Your task to perform on an android device: Open Google Maps and go to "Timeline" Image 0: 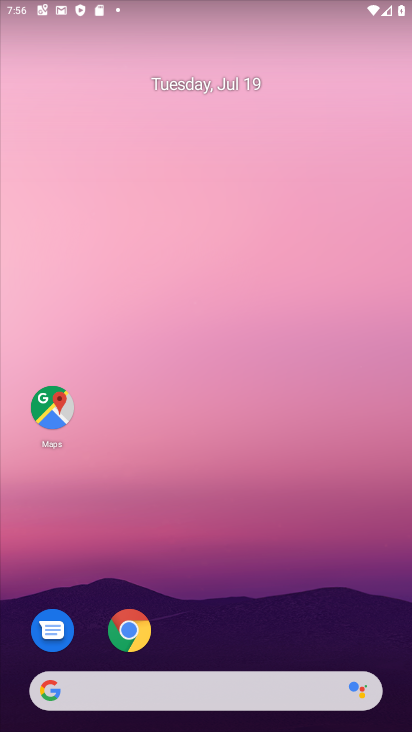
Step 0: click (48, 418)
Your task to perform on an android device: Open Google Maps and go to "Timeline" Image 1: 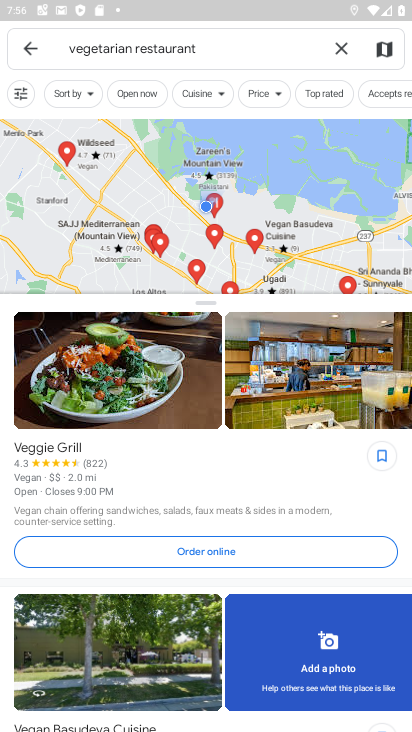
Step 1: click (27, 57)
Your task to perform on an android device: Open Google Maps and go to "Timeline" Image 2: 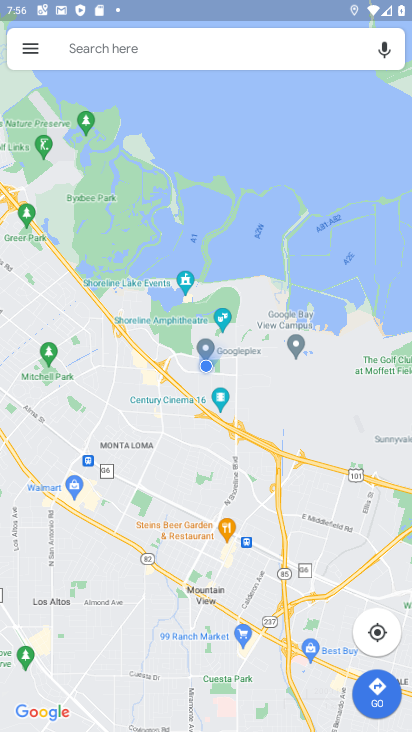
Step 2: click (21, 48)
Your task to perform on an android device: Open Google Maps and go to "Timeline" Image 3: 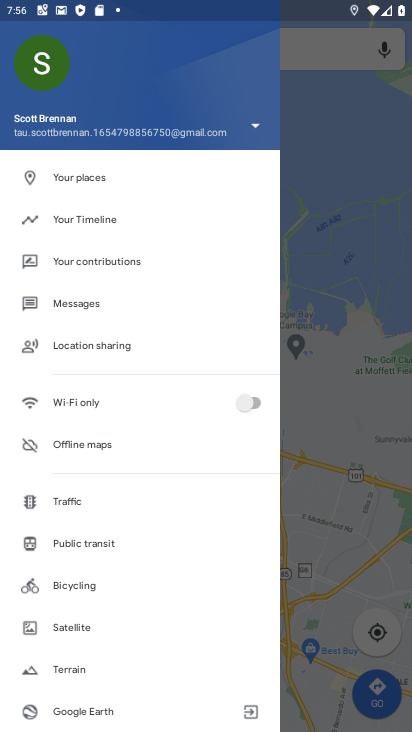
Step 3: click (88, 217)
Your task to perform on an android device: Open Google Maps and go to "Timeline" Image 4: 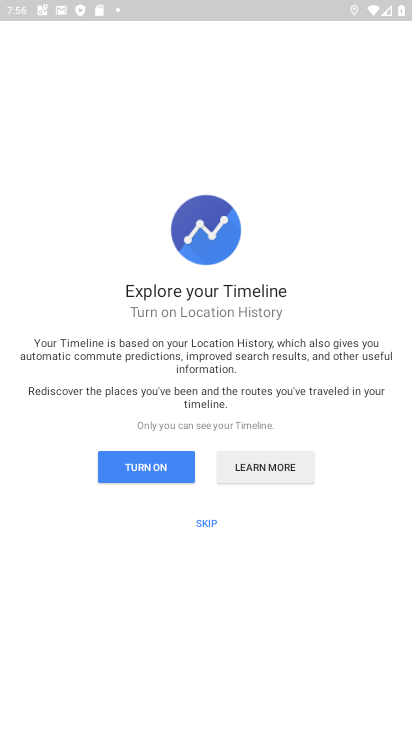
Step 4: click (149, 466)
Your task to perform on an android device: Open Google Maps and go to "Timeline" Image 5: 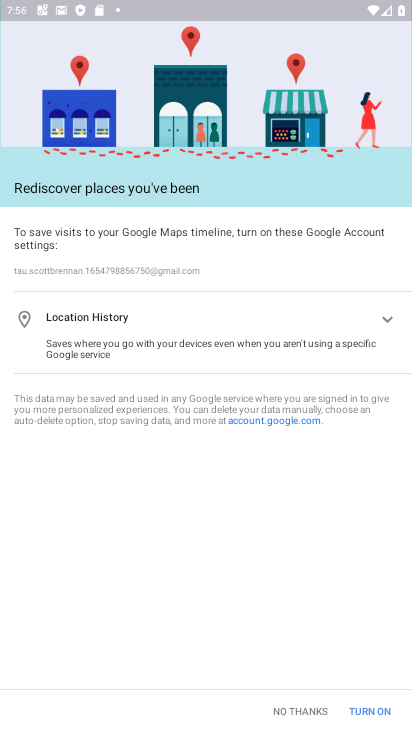
Step 5: task complete